Your task to perform on an android device: turn off sleep mode Image 0: 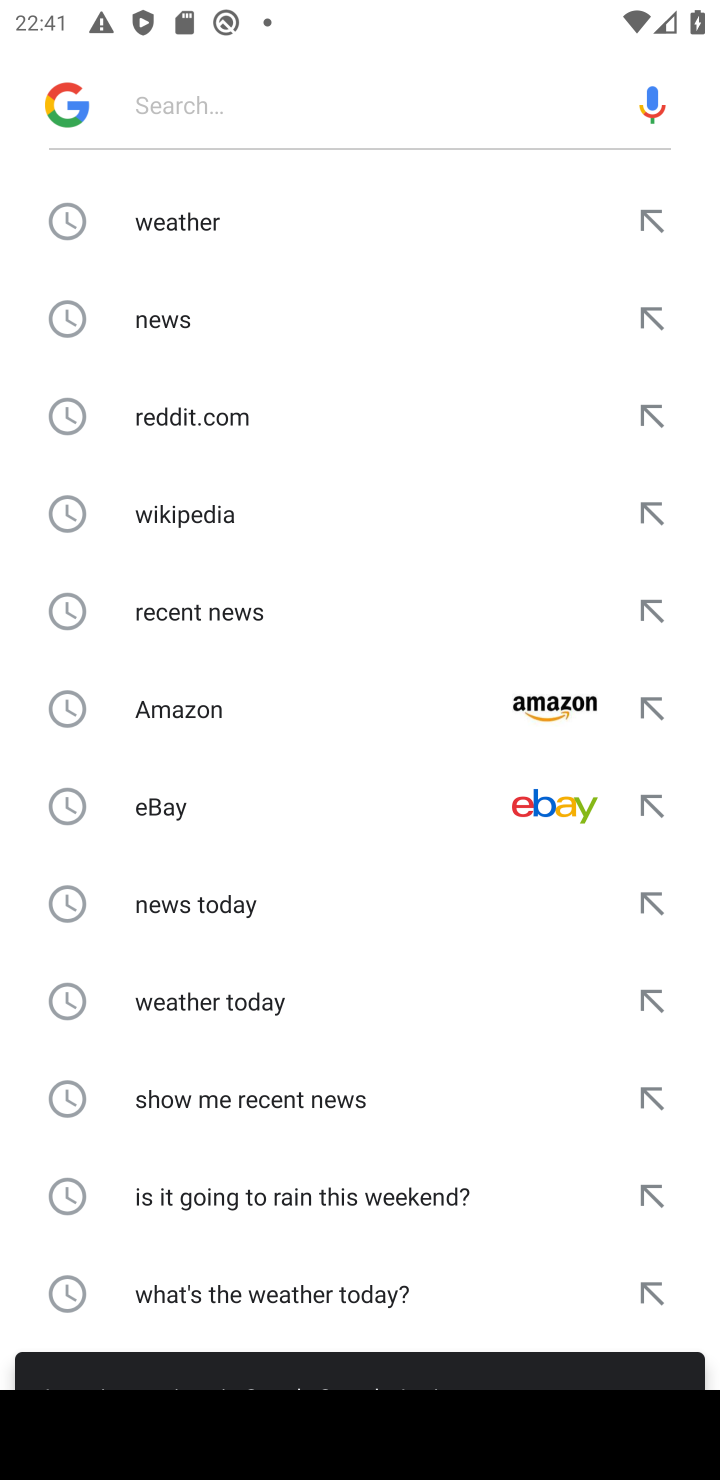
Step 0: press home button
Your task to perform on an android device: turn off sleep mode Image 1: 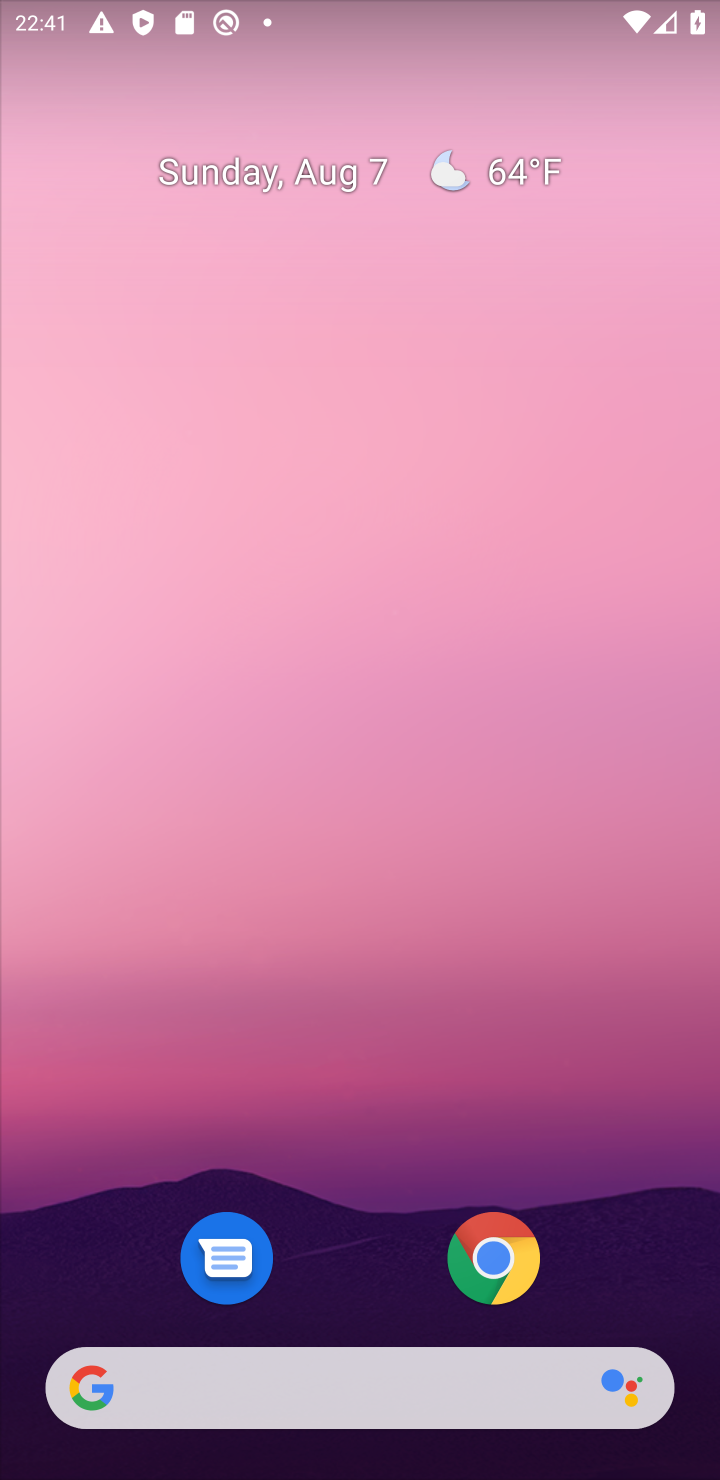
Step 1: drag from (360, 1233) to (286, 453)
Your task to perform on an android device: turn off sleep mode Image 2: 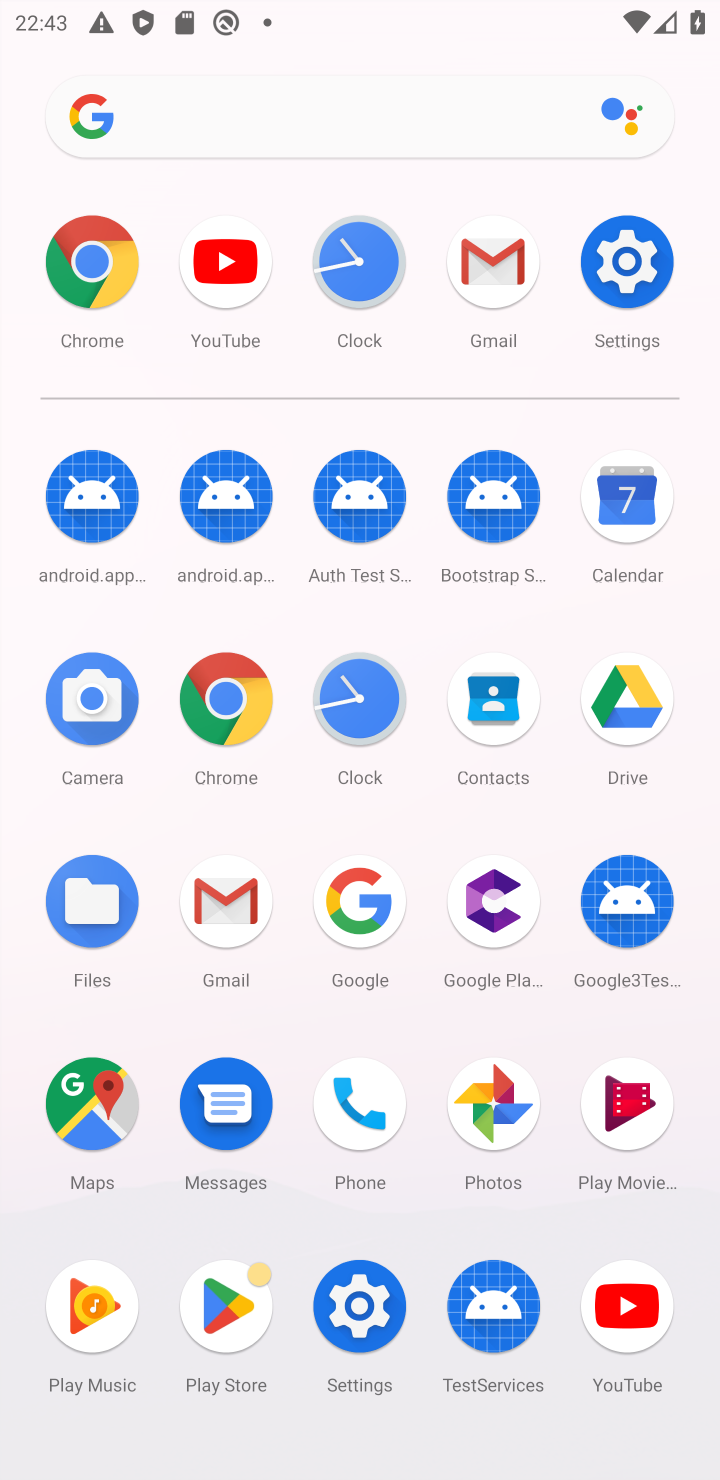
Step 2: click (376, 1324)
Your task to perform on an android device: turn off sleep mode Image 3: 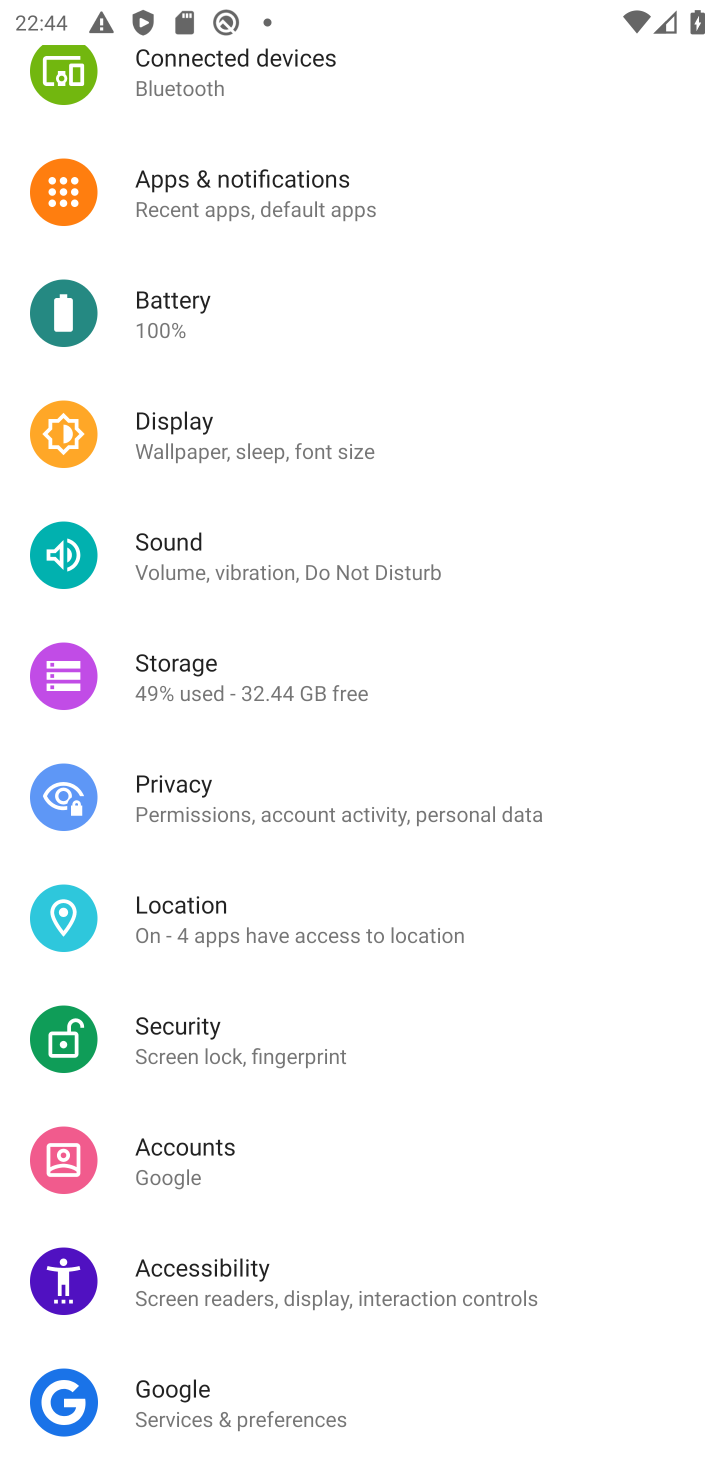
Step 3: click (147, 433)
Your task to perform on an android device: turn off sleep mode Image 4: 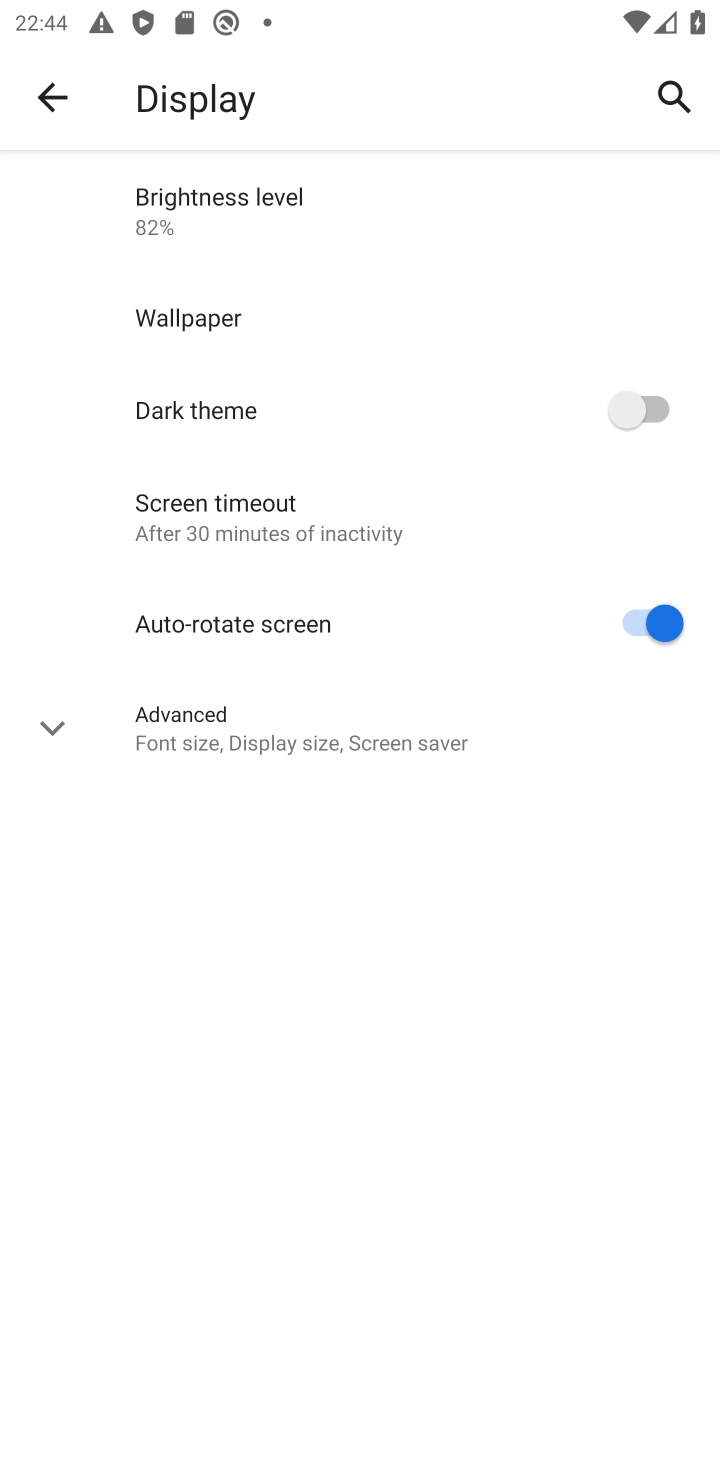
Step 4: task complete